Your task to perform on an android device: toggle priority inbox in the gmail app Image 0: 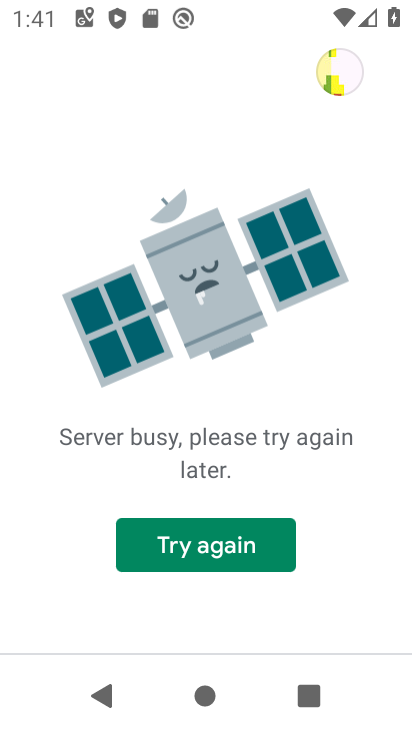
Step 0: press home button
Your task to perform on an android device: toggle priority inbox in the gmail app Image 1: 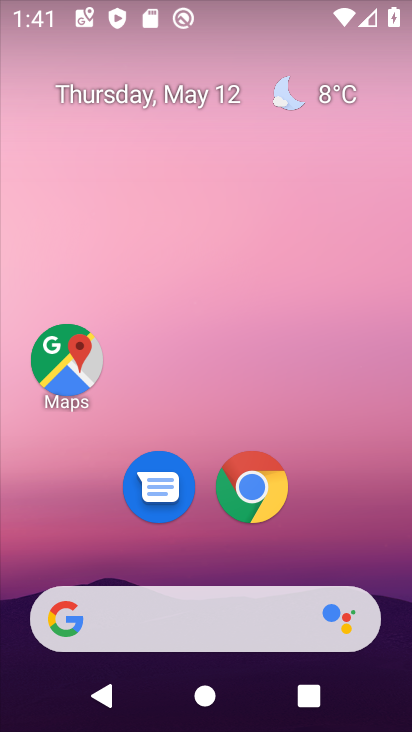
Step 1: drag from (321, 545) to (300, 95)
Your task to perform on an android device: toggle priority inbox in the gmail app Image 2: 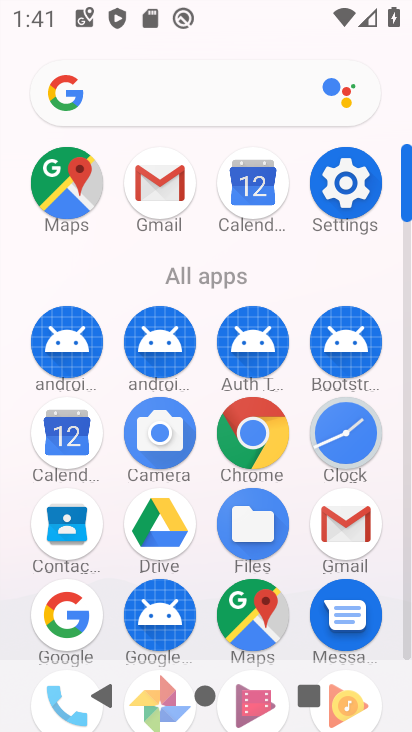
Step 2: click (339, 520)
Your task to perform on an android device: toggle priority inbox in the gmail app Image 3: 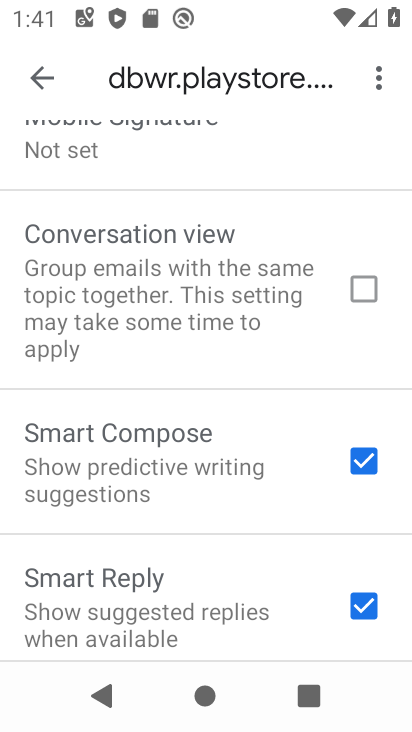
Step 3: drag from (127, 300) to (145, 550)
Your task to perform on an android device: toggle priority inbox in the gmail app Image 4: 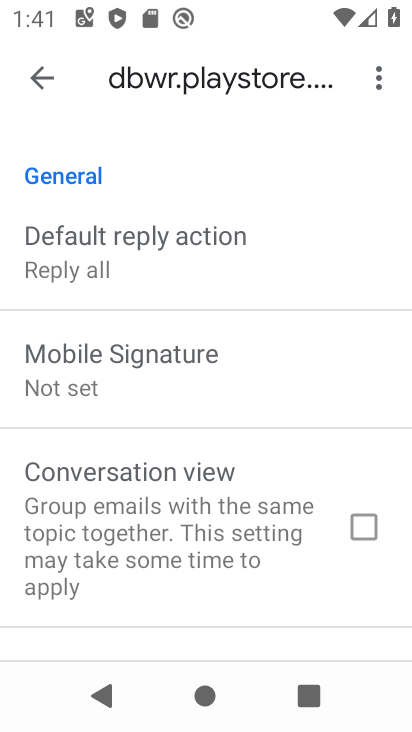
Step 4: drag from (169, 268) to (219, 475)
Your task to perform on an android device: toggle priority inbox in the gmail app Image 5: 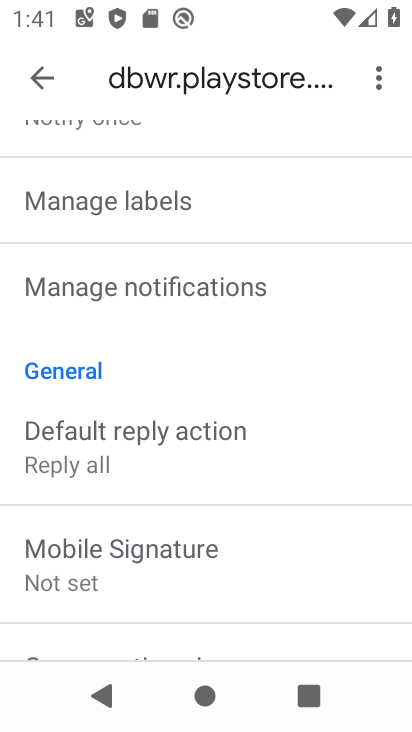
Step 5: drag from (213, 232) to (238, 470)
Your task to perform on an android device: toggle priority inbox in the gmail app Image 6: 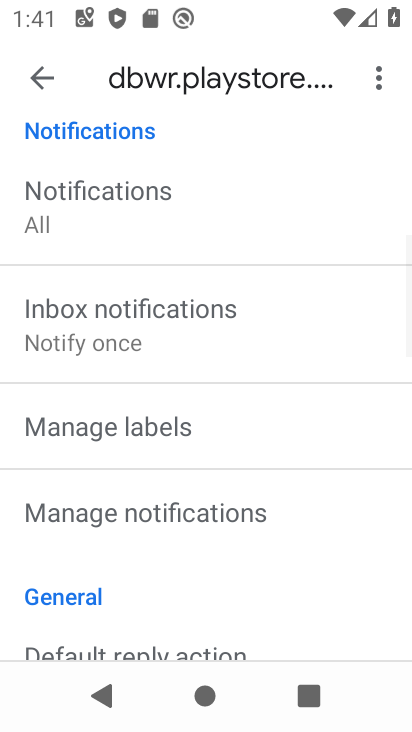
Step 6: drag from (194, 229) to (205, 452)
Your task to perform on an android device: toggle priority inbox in the gmail app Image 7: 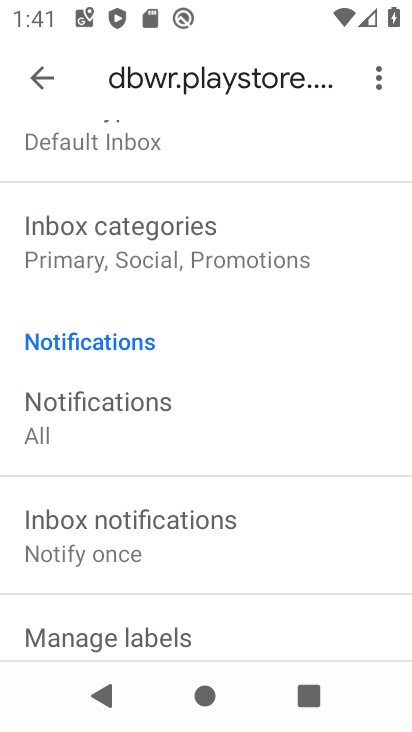
Step 7: drag from (136, 241) to (156, 495)
Your task to perform on an android device: toggle priority inbox in the gmail app Image 8: 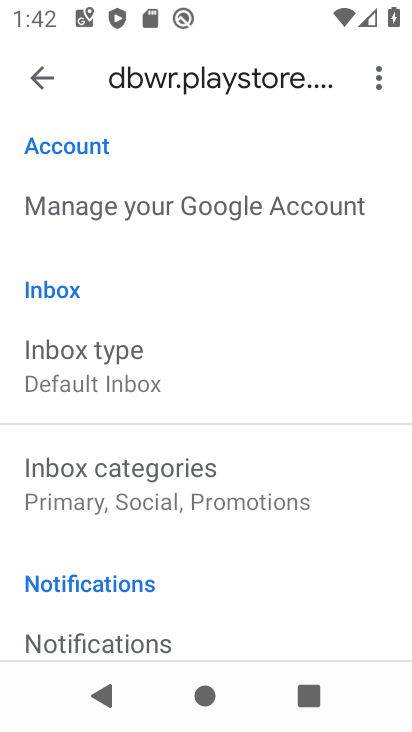
Step 8: click (98, 364)
Your task to perform on an android device: toggle priority inbox in the gmail app Image 9: 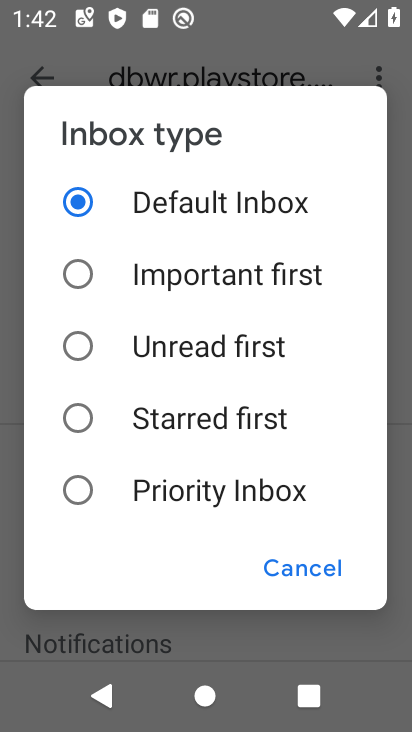
Step 9: click (137, 492)
Your task to perform on an android device: toggle priority inbox in the gmail app Image 10: 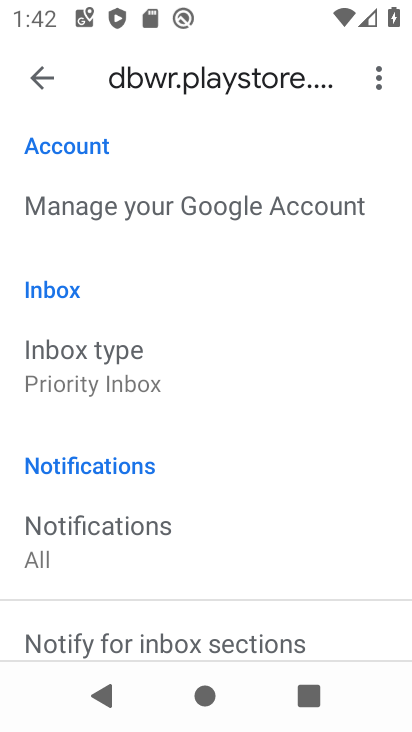
Step 10: task complete